Your task to perform on an android device: Go to Maps Image 0: 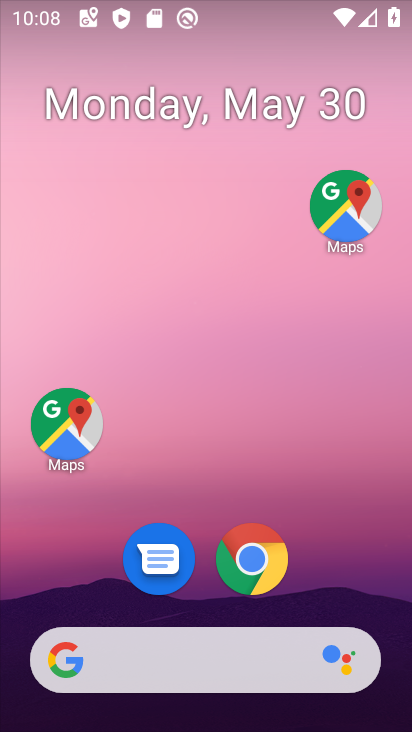
Step 0: click (65, 431)
Your task to perform on an android device: Go to Maps Image 1: 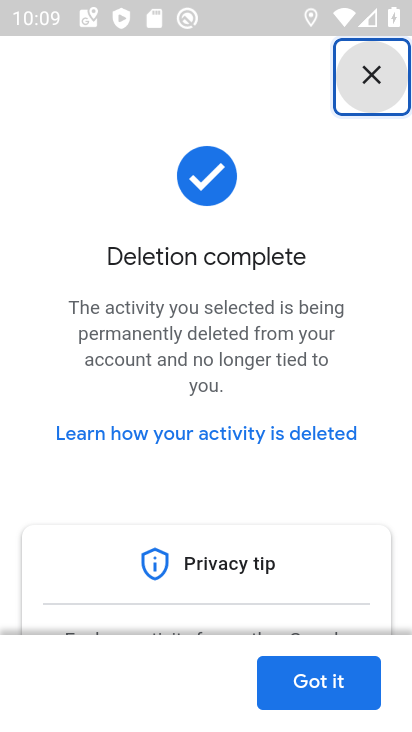
Step 1: task complete